Your task to perform on an android device: change the clock style Image 0: 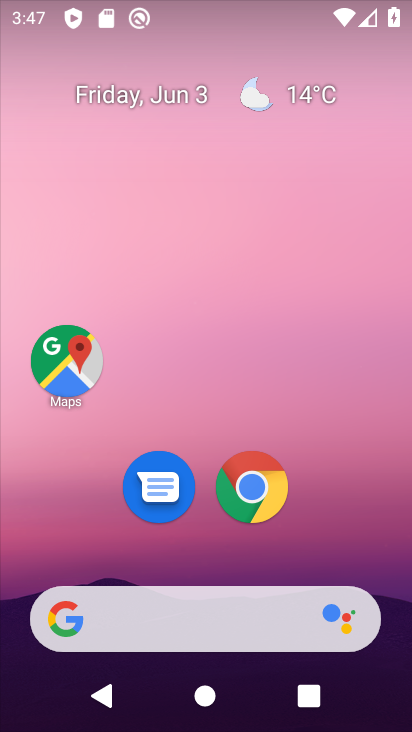
Step 0: drag from (107, 574) to (226, 107)
Your task to perform on an android device: change the clock style Image 1: 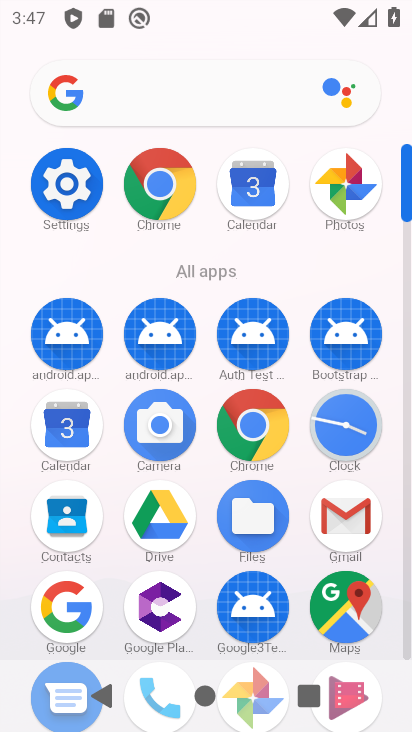
Step 1: click (359, 407)
Your task to perform on an android device: change the clock style Image 2: 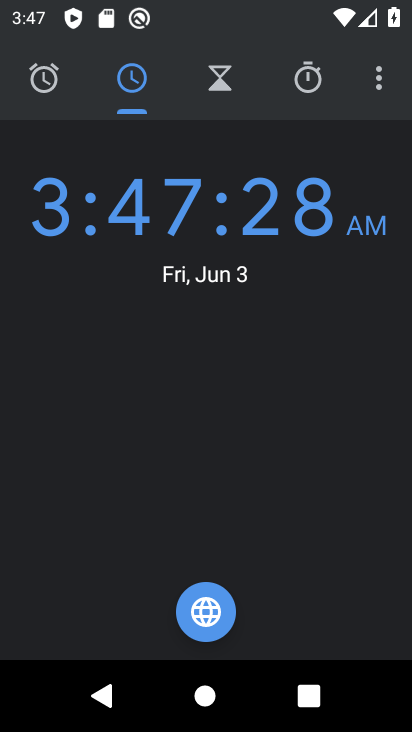
Step 2: click (374, 83)
Your task to perform on an android device: change the clock style Image 3: 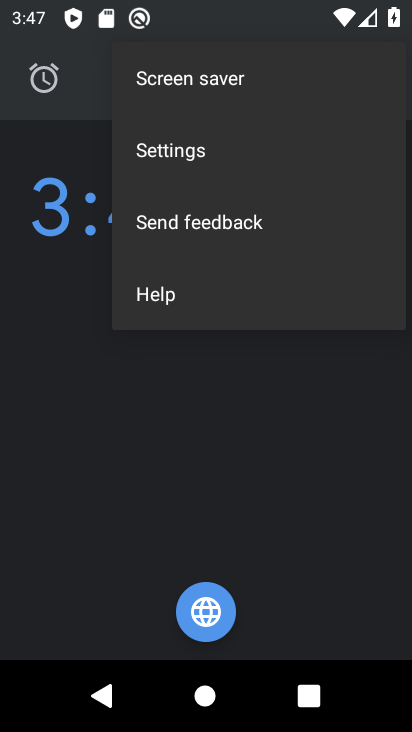
Step 3: click (198, 156)
Your task to perform on an android device: change the clock style Image 4: 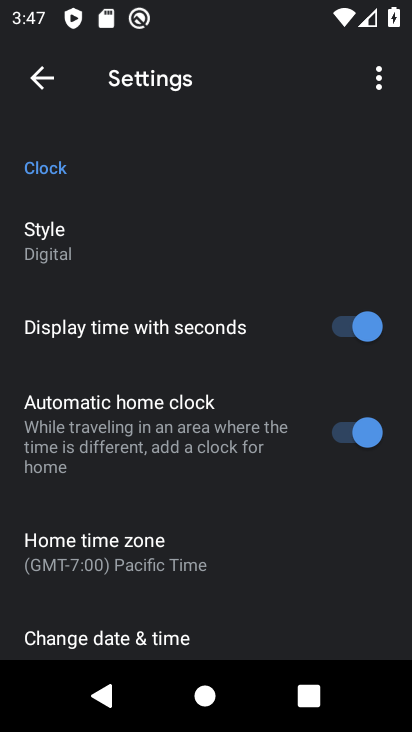
Step 4: click (105, 231)
Your task to perform on an android device: change the clock style Image 5: 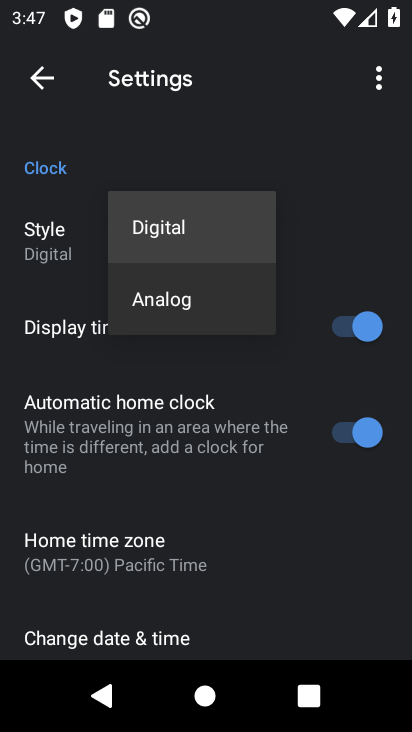
Step 5: click (164, 295)
Your task to perform on an android device: change the clock style Image 6: 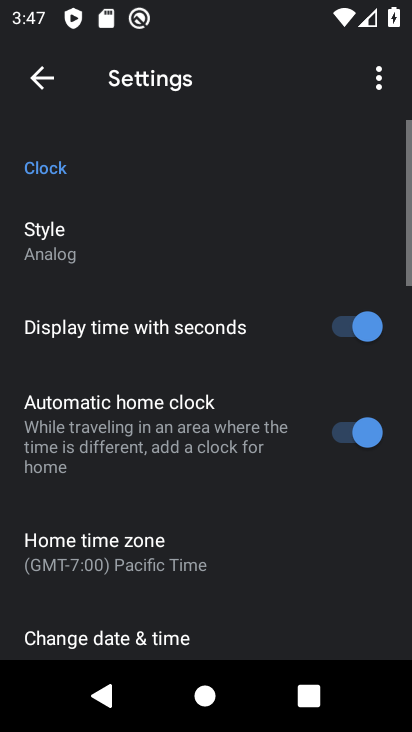
Step 6: task complete